Your task to perform on an android device: Search for lenovo thinkpad on walmart, select the first entry, add it to the cart, then select checkout. Image 0: 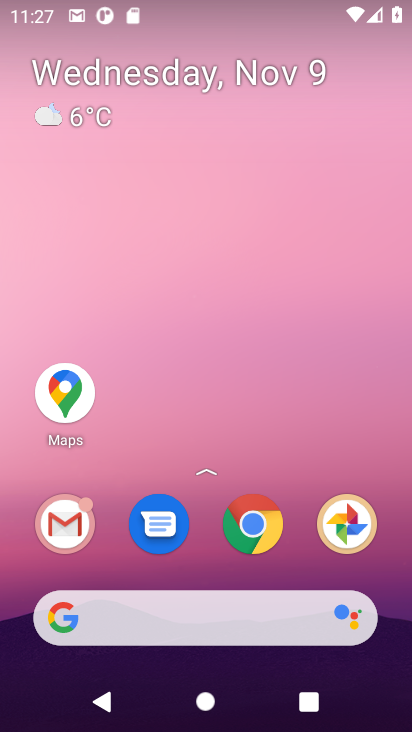
Step 0: click (261, 617)
Your task to perform on an android device: Search for lenovo thinkpad on walmart, select the first entry, add it to the cart, then select checkout. Image 1: 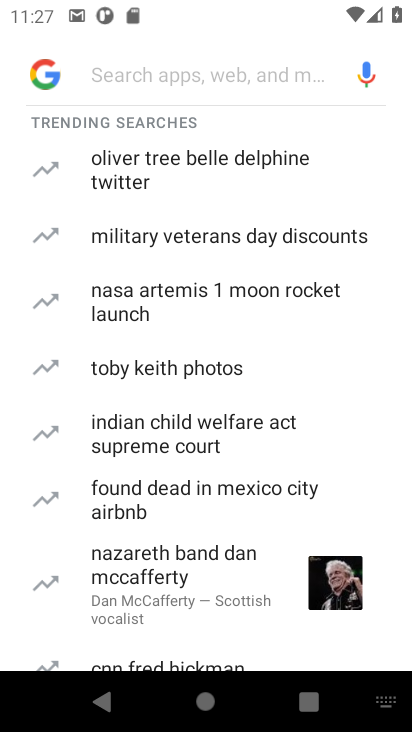
Step 1: type " lenovo thinkpad on walmart"
Your task to perform on an android device: Search for lenovo thinkpad on walmart, select the first entry, add it to the cart, then select checkout. Image 2: 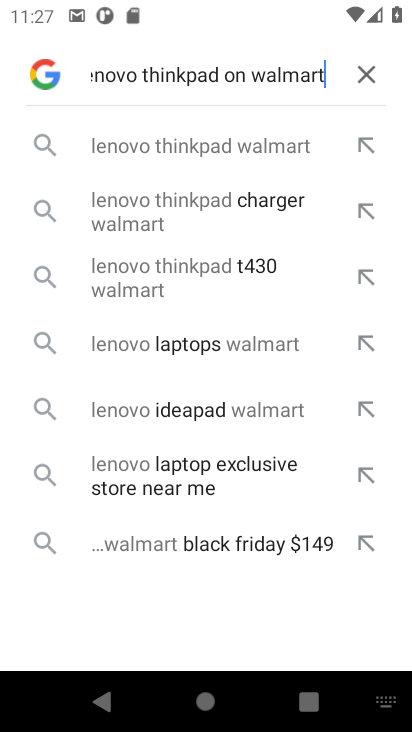
Step 2: click (266, 145)
Your task to perform on an android device: Search for lenovo thinkpad on walmart, select the first entry, add it to the cart, then select checkout. Image 3: 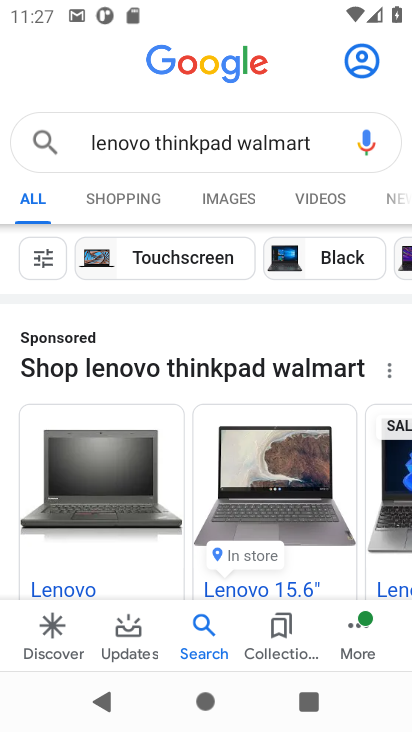
Step 3: drag from (198, 550) to (245, 249)
Your task to perform on an android device: Search for lenovo thinkpad on walmart, select the first entry, add it to the cart, then select checkout. Image 4: 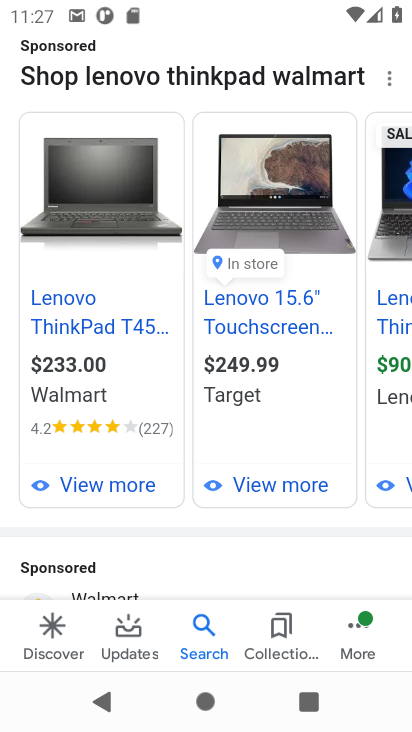
Step 4: click (88, 319)
Your task to perform on an android device: Search for lenovo thinkpad on walmart, select the first entry, add it to the cart, then select checkout. Image 5: 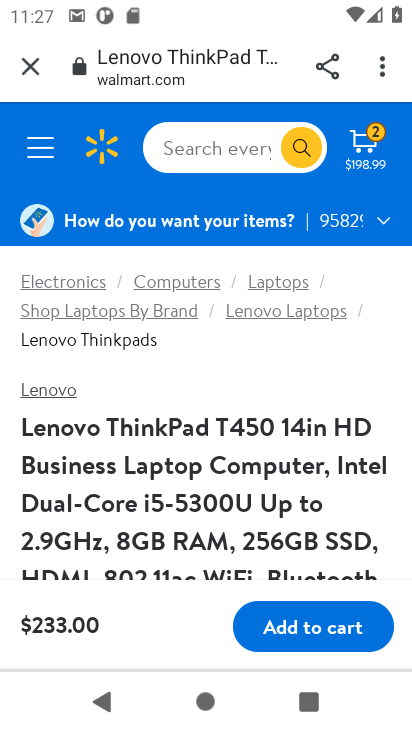
Step 5: click (304, 624)
Your task to perform on an android device: Search for lenovo thinkpad on walmart, select the first entry, add it to the cart, then select checkout. Image 6: 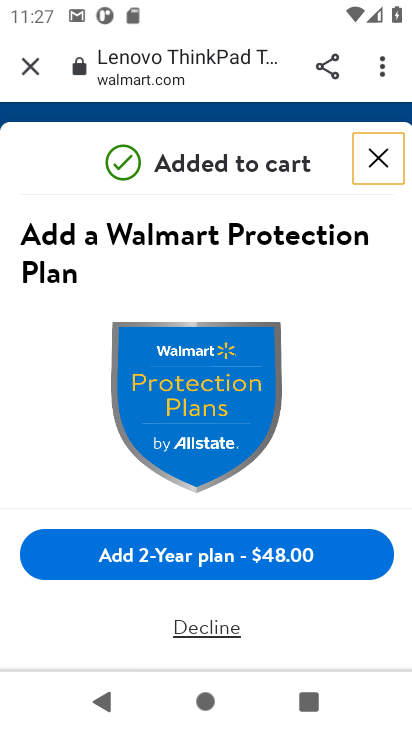
Step 6: click (382, 155)
Your task to perform on an android device: Search for lenovo thinkpad on walmart, select the first entry, add it to the cart, then select checkout. Image 7: 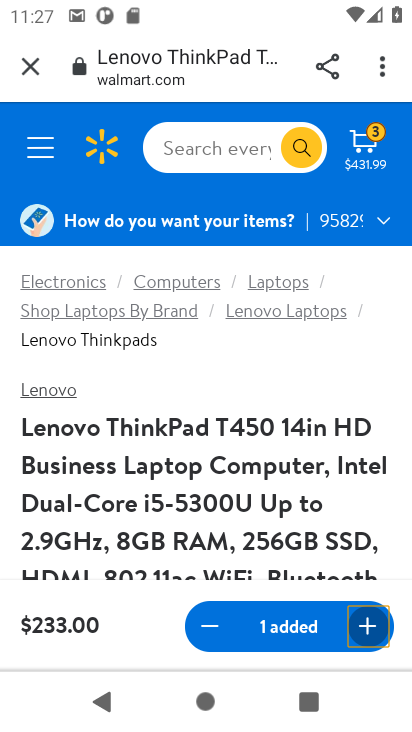
Step 7: click (370, 146)
Your task to perform on an android device: Search for lenovo thinkpad on walmart, select the first entry, add it to the cart, then select checkout. Image 8: 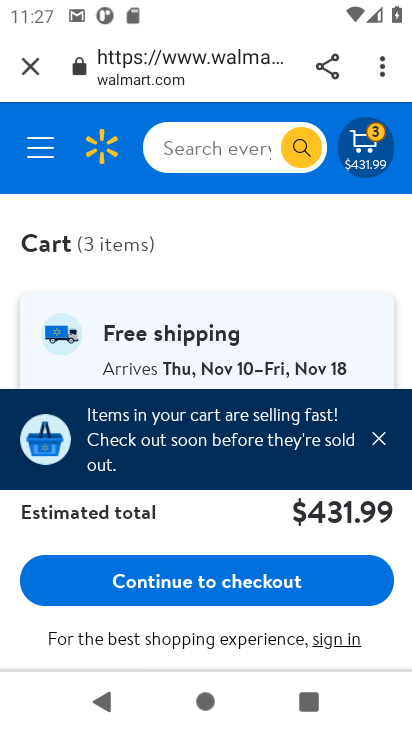
Step 8: click (184, 593)
Your task to perform on an android device: Search for lenovo thinkpad on walmart, select the first entry, add it to the cart, then select checkout. Image 9: 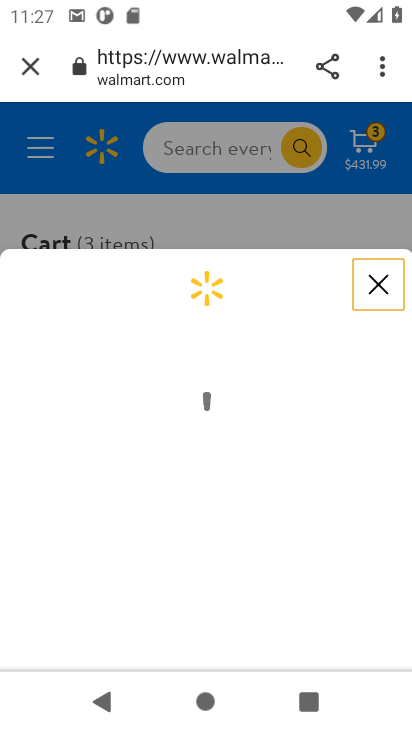
Step 9: task complete